Your task to perform on an android device: turn on airplane mode Image 0: 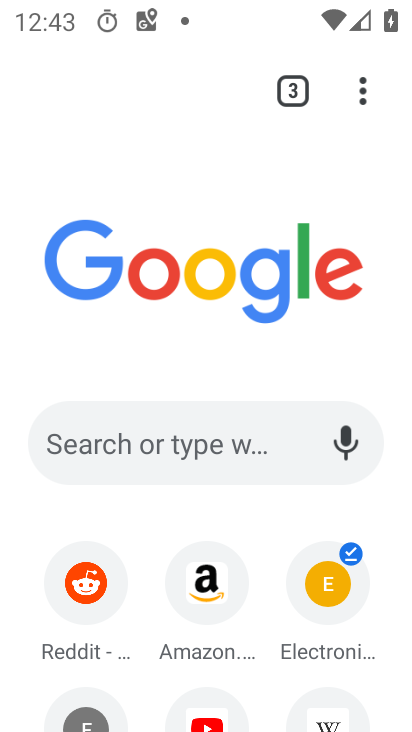
Step 0: press home button
Your task to perform on an android device: turn on airplane mode Image 1: 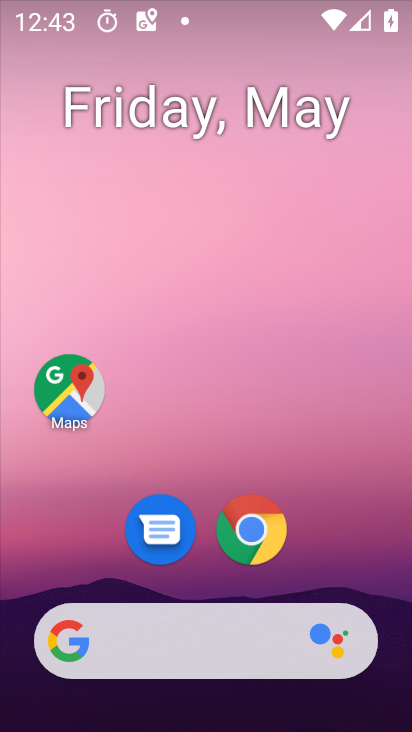
Step 1: drag from (241, 476) to (224, 109)
Your task to perform on an android device: turn on airplane mode Image 2: 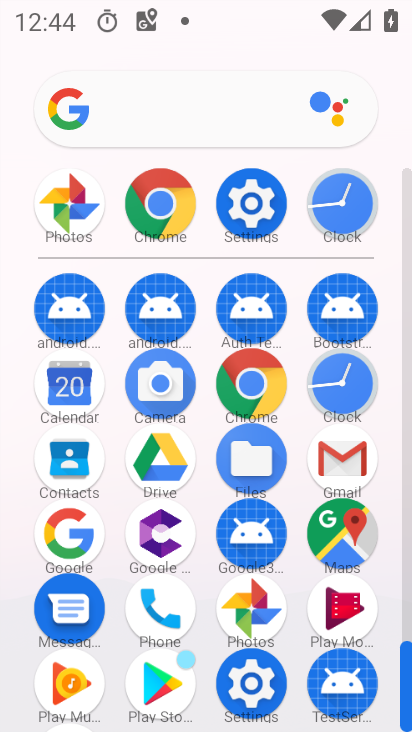
Step 2: click (255, 200)
Your task to perform on an android device: turn on airplane mode Image 3: 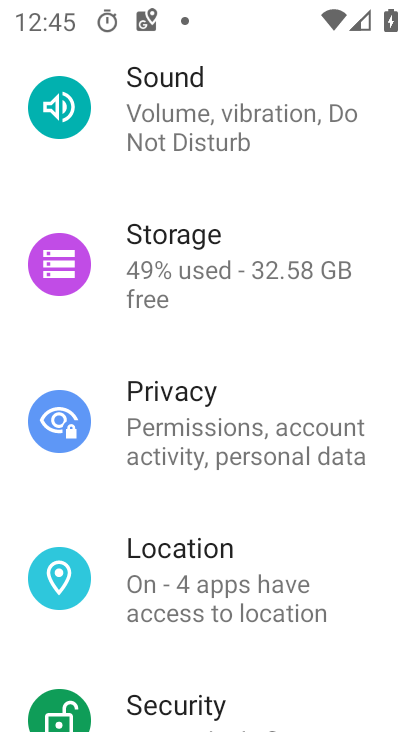
Step 3: drag from (241, 185) to (411, 711)
Your task to perform on an android device: turn on airplane mode Image 4: 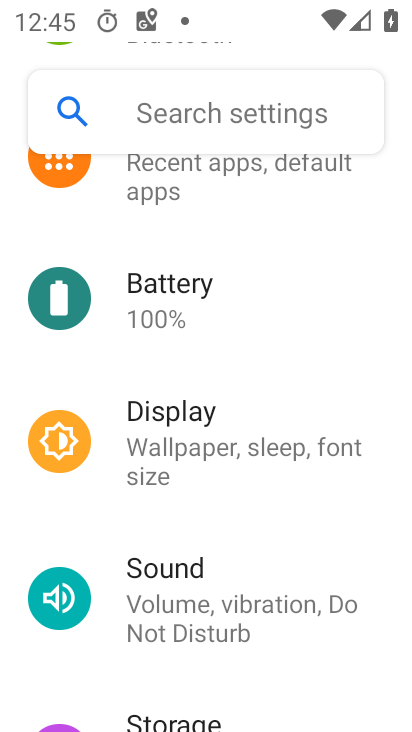
Step 4: drag from (233, 452) to (238, 663)
Your task to perform on an android device: turn on airplane mode Image 5: 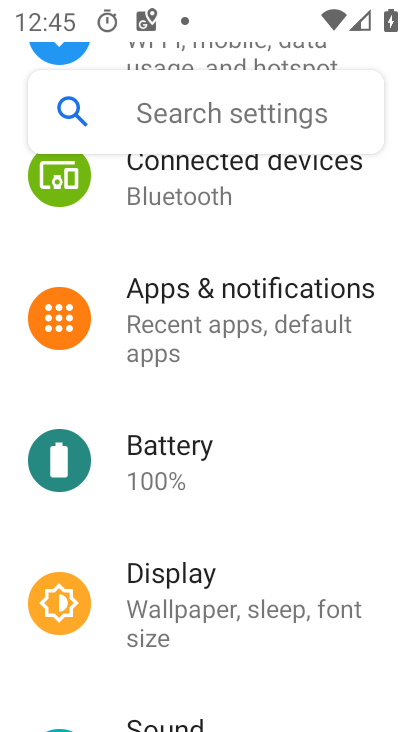
Step 5: drag from (179, 206) to (230, 697)
Your task to perform on an android device: turn on airplane mode Image 6: 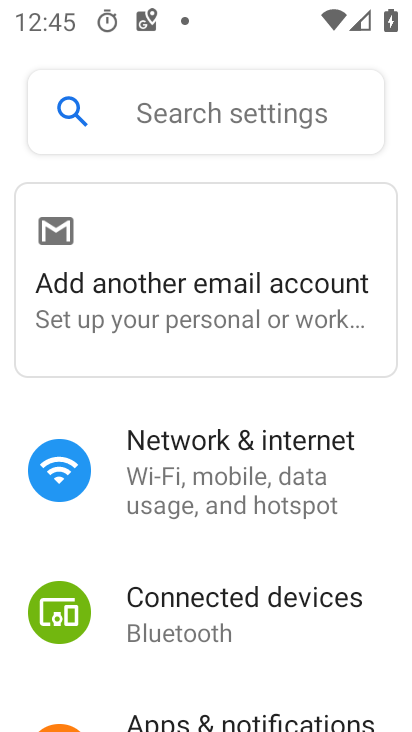
Step 6: click (207, 463)
Your task to perform on an android device: turn on airplane mode Image 7: 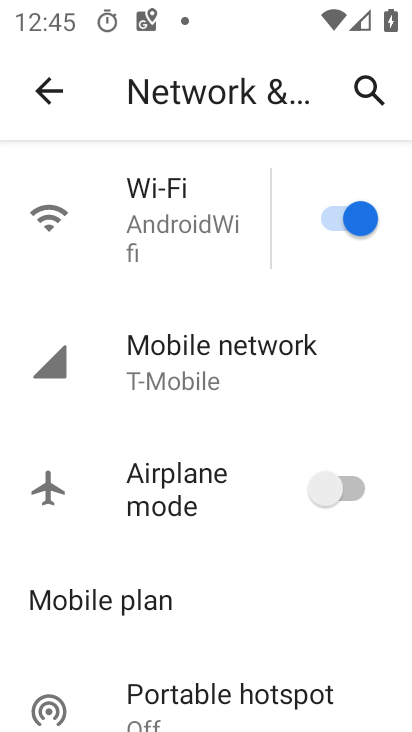
Step 7: click (363, 474)
Your task to perform on an android device: turn on airplane mode Image 8: 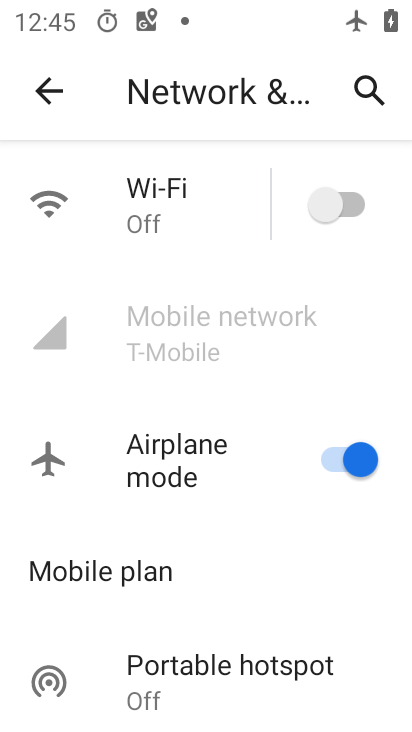
Step 8: task complete